Your task to perform on an android device: clear history in the chrome app Image 0: 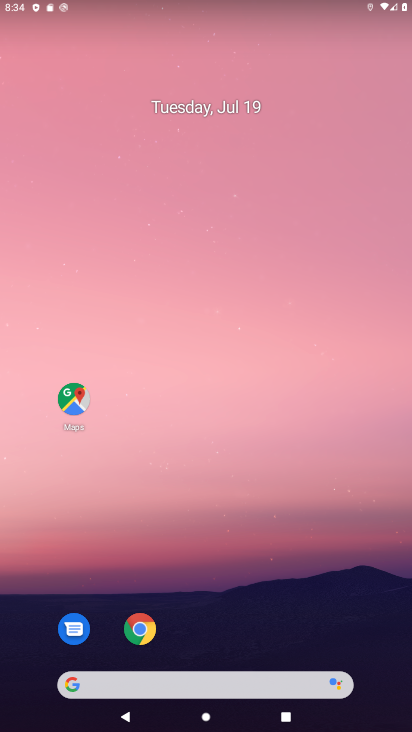
Step 0: press home button
Your task to perform on an android device: clear history in the chrome app Image 1: 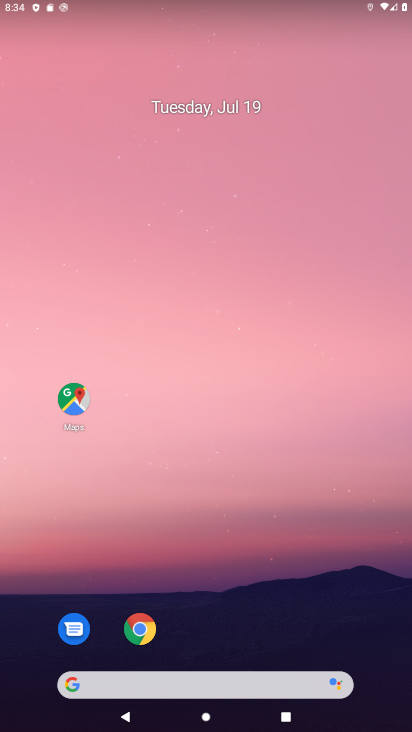
Step 1: click (139, 616)
Your task to perform on an android device: clear history in the chrome app Image 2: 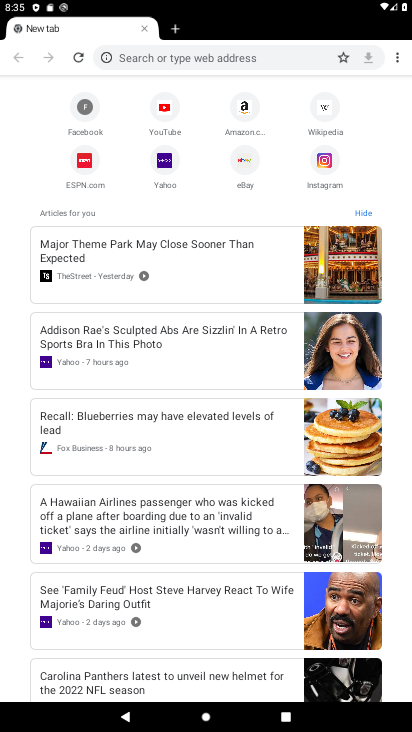
Step 2: click (396, 56)
Your task to perform on an android device: clear history in the chrome app Image 3: 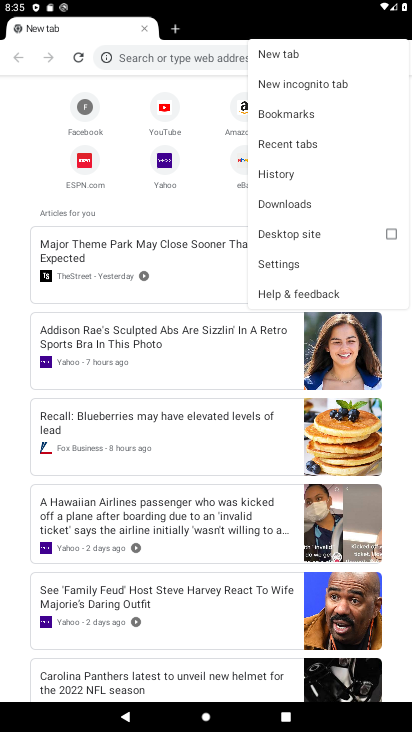
Step 3: click (291, 169)
Your task to perform on an android device: clear history in the chrome app Image 4: 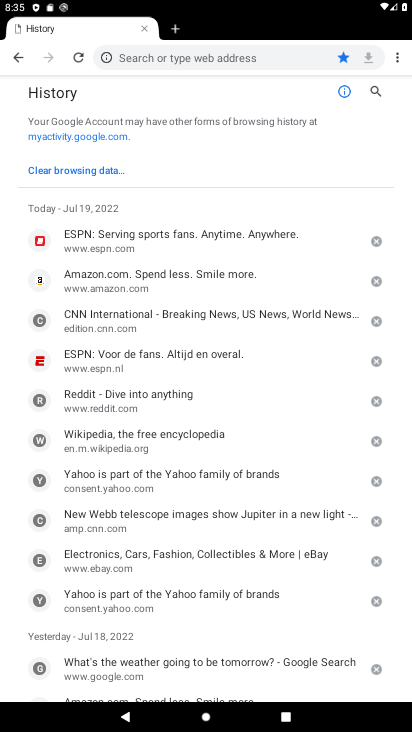
Step 4: click (84, 167)
Your task to perform on an android device: clear history in the chrome app Image 5: 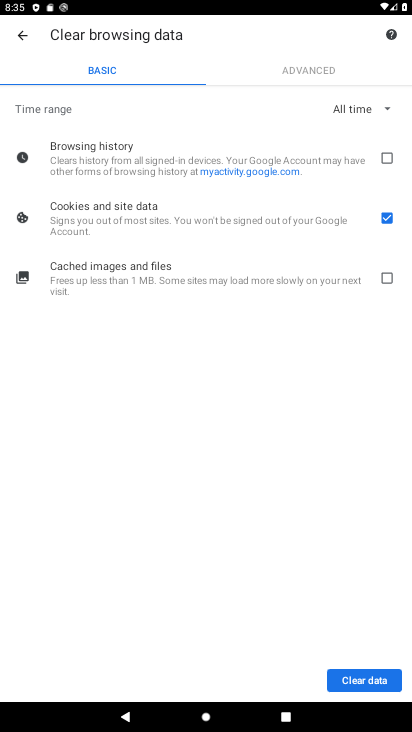
Step 5: click (385, 156)
Your task to perform on an android device: clear history in the chrome app Image 6: 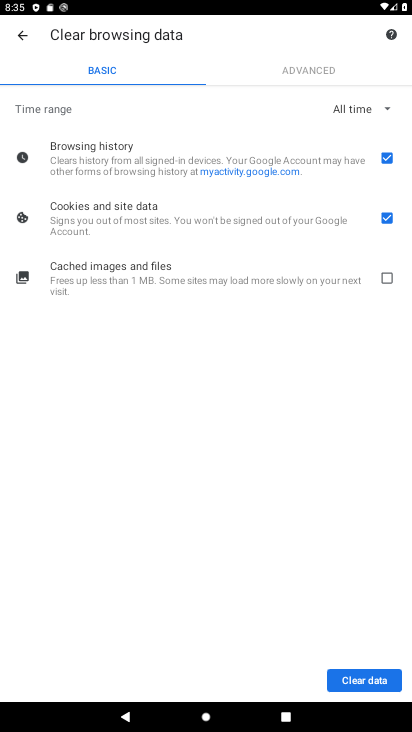
Step 6: click (388, 286)
Your task to perform on an android device: clear history in the chrome app Image 7: 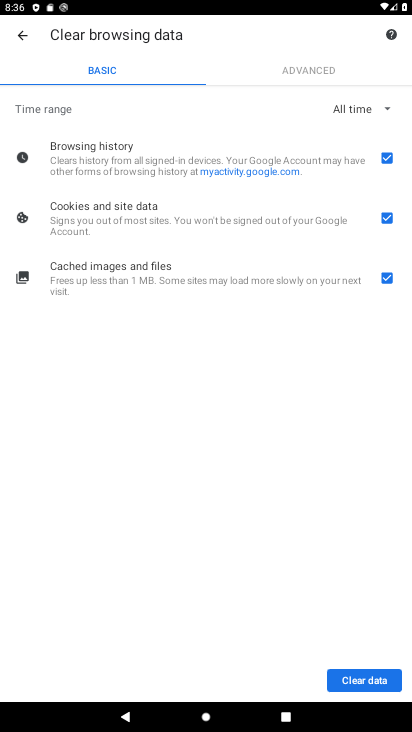
Step 7: click (367, 684)
Your task to perform on an android device: clear history in the chrome app Image 8: 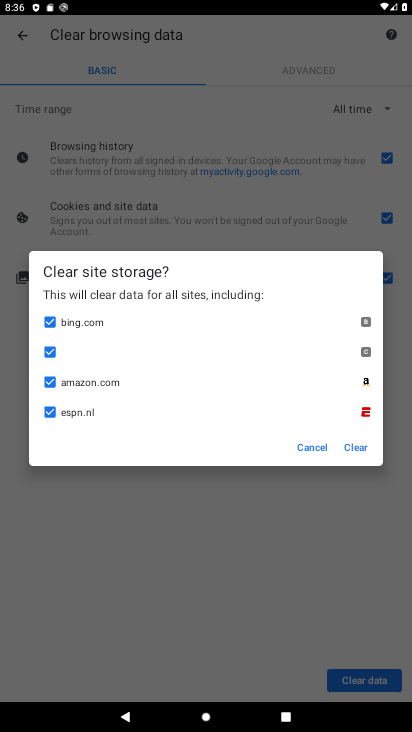
Step 8: click (353, 449)
Your task to perform on an android device: clear history in the chrome app Image 9: 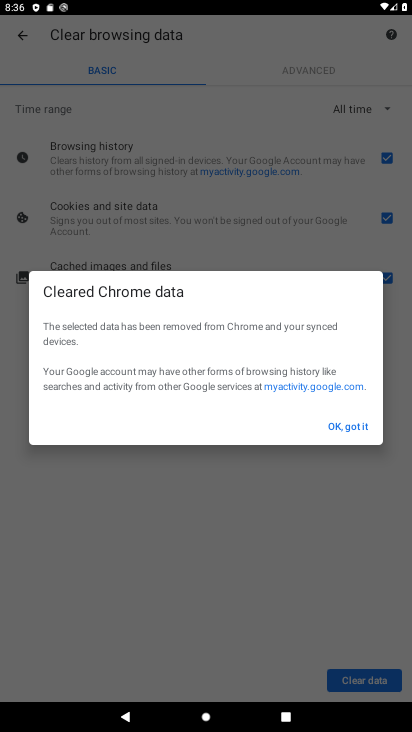
Step 9: click (348, 426)
Your task to perform on an android device: clear history in the chrome app Image 10: 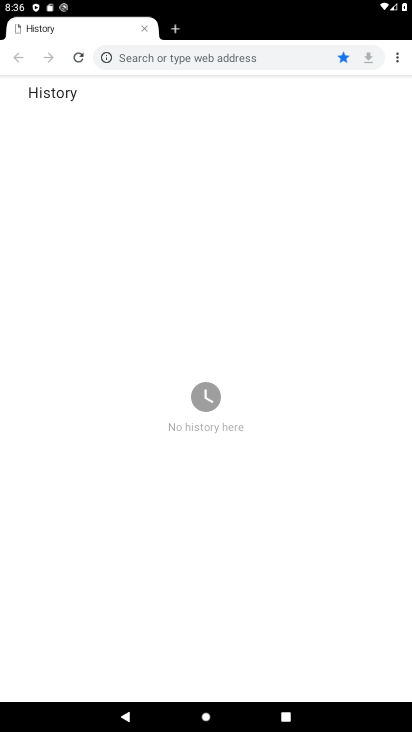
Step 10: task complete